Your task to perform on an android device: Search for pizza restaurants on Maps Image 0: 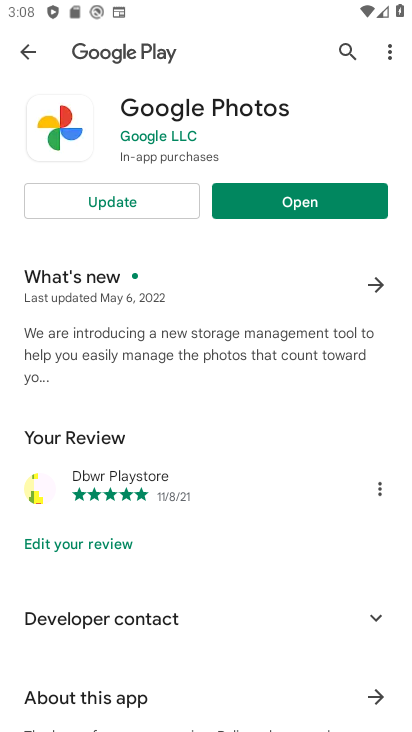
Step 0: press home button
Your task to perform on an android device: Search for pizza restaurants on Maps Image 1: 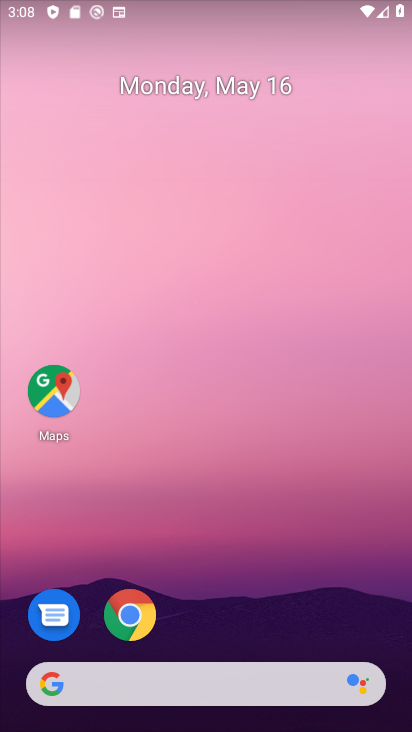
Step 1: click (40, 390)
Your task to perform on an android device: Search for pizza restaurants on Maps Image 2: 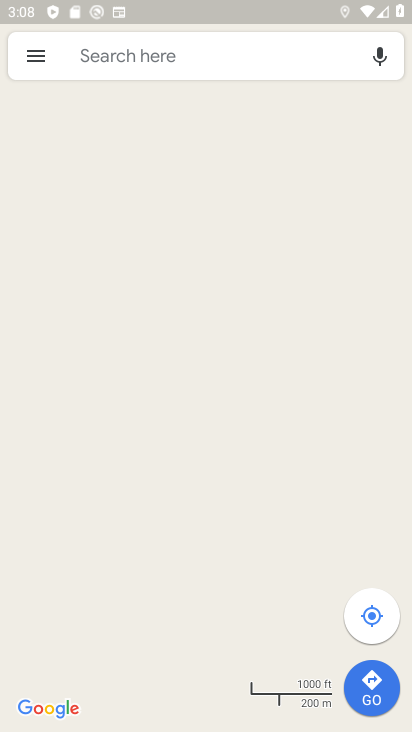
Step 2: click (219, 64)
Your task to perform on an android device: Search for pizza restaurants on Maps Image 3: 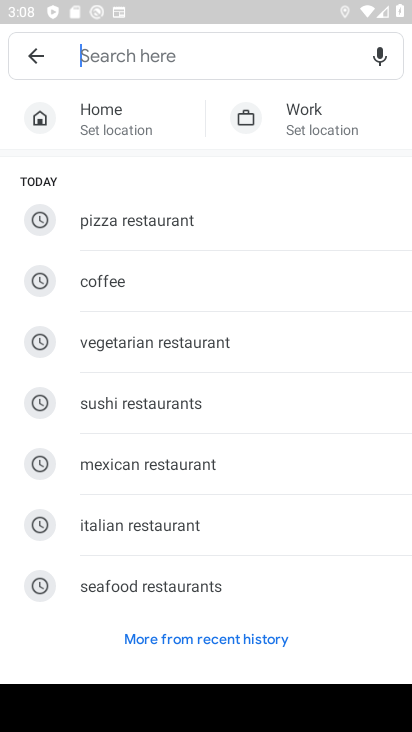
Step 3: click (167, 218)
Your task to perform on an android device: Search for pizza restaurants on Maps Image 4: 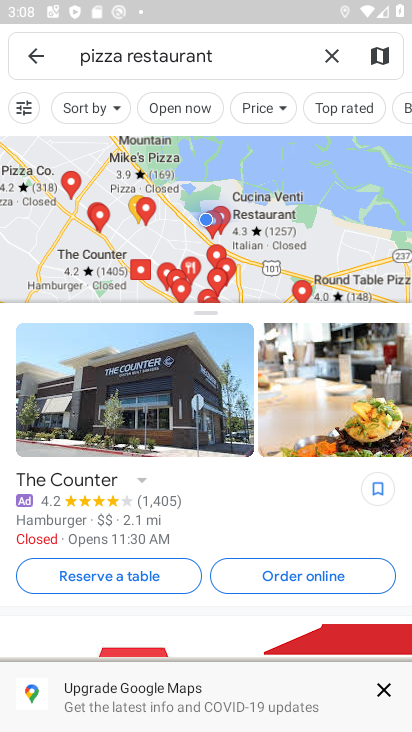
Step 4: task complete